Your task to perform on an android device: Open Android settings Image 0: 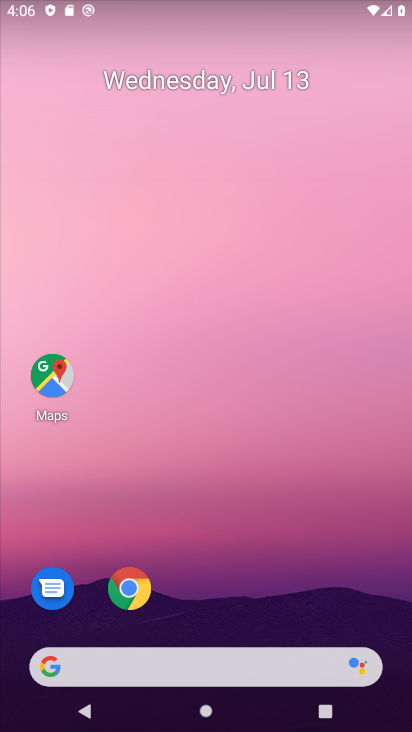
Step 0: drag from (34, 695) to (212, 186)
Your task to perform on an android device: Open Android settings Image 1: 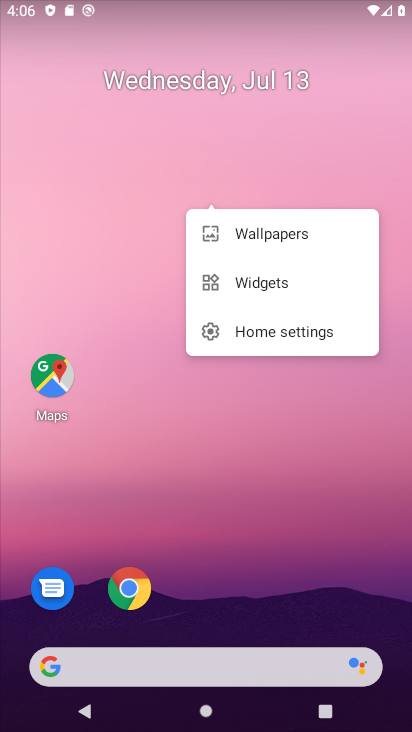
Step 1: task complete